Your task to perform on an android device: Open Wikipedia Image 0: 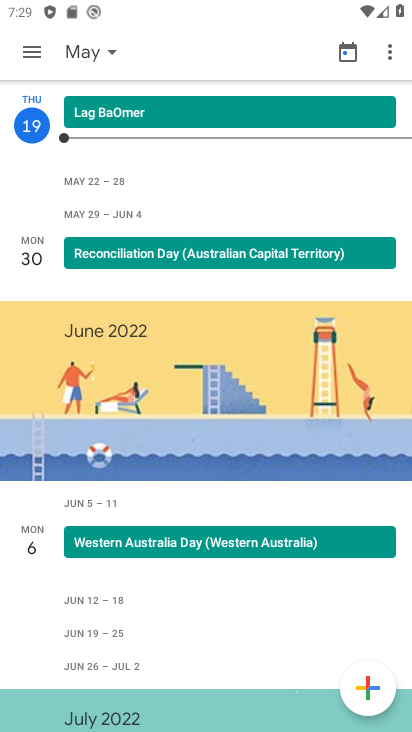
Step 0: press home button
Your task to perform on an android device: Open Wikipedia Image 1: 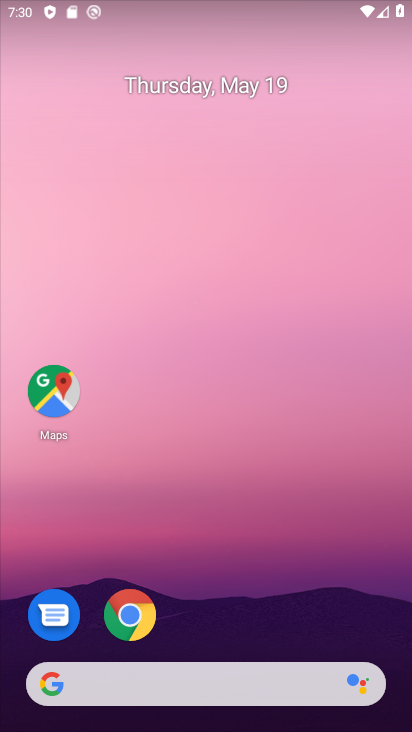
Step 1: drag from (203, 596) to (177, 11)
Your task to perform on an android device: Open Wikipedia Image 2: 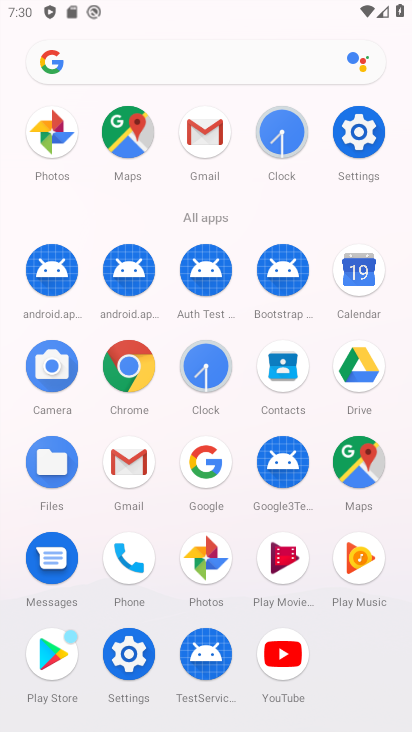
Step 2: click (134, 359)
Your task to perform on an android device: Open Wikipedia Image 3: 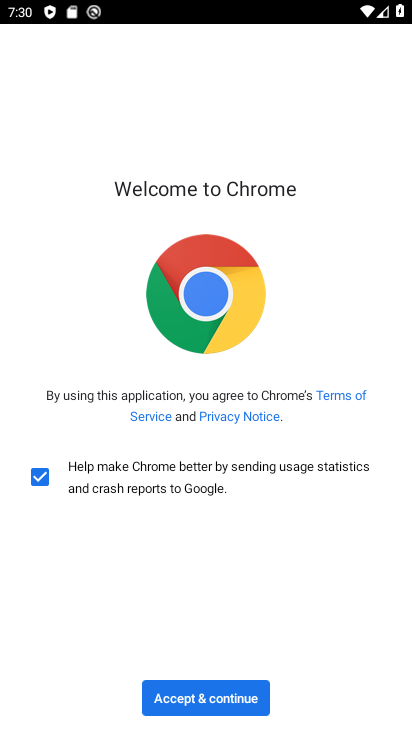
Step 3: click (193, 702)
Your task to perform on an android device: Open Wikipedia Image 4: 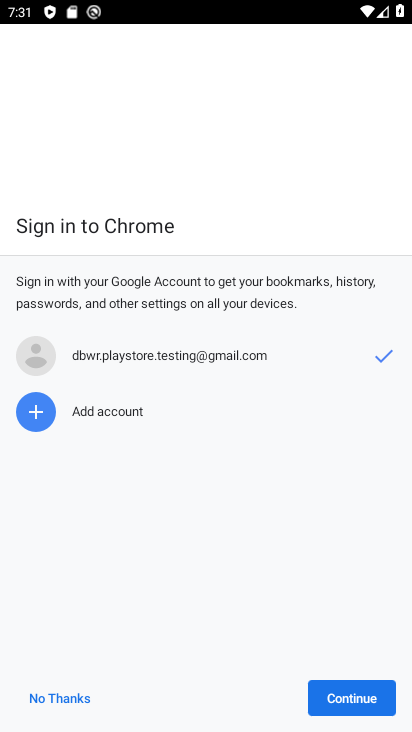
Step 4: click (351, 689)
Your task to perform on an android device: Open Wikipedia Image 5: 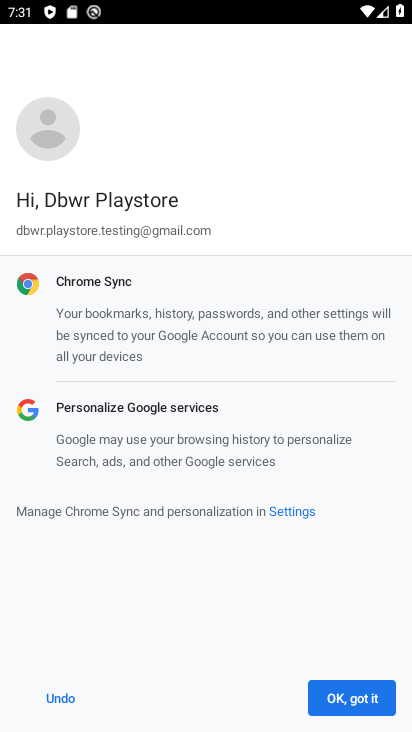
Step 5: click (354, 705)
Your task to perform on an android device: Open Wikipedia Image 6: 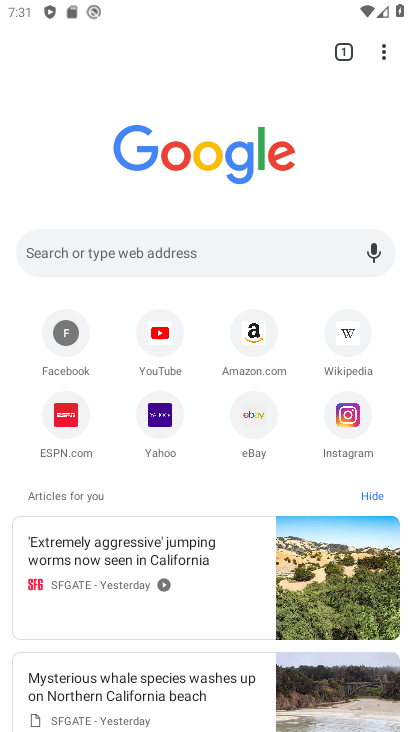
Step 6: click (360, 347)
Your task to perform on an android device: Open Wikipedia Image 7: 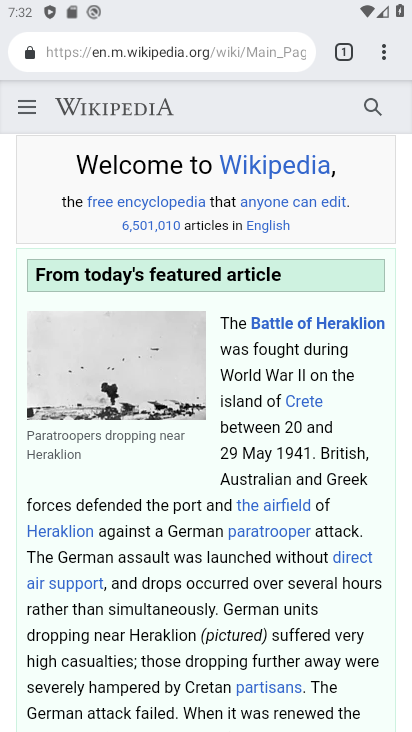
Step 7: task complete